Your task to perform on an android device: turn off improve location accuracy Image 0: 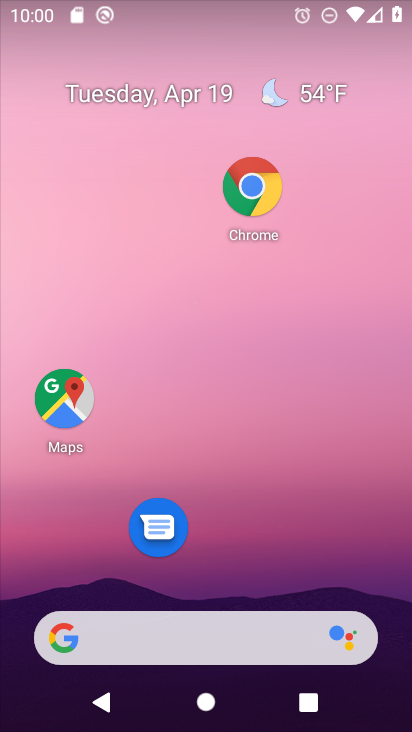
Step 0: click (319, 185)
Your task to perform on an android device: turn off improve location accuracy Image 1: 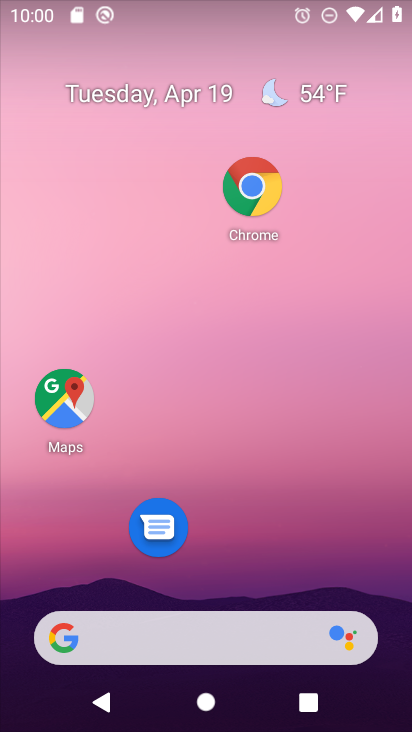
Step 1: drag from (268, 375) to (268, 290)
Your task to perform on an android device: turn off improve location accuracy Image 2: 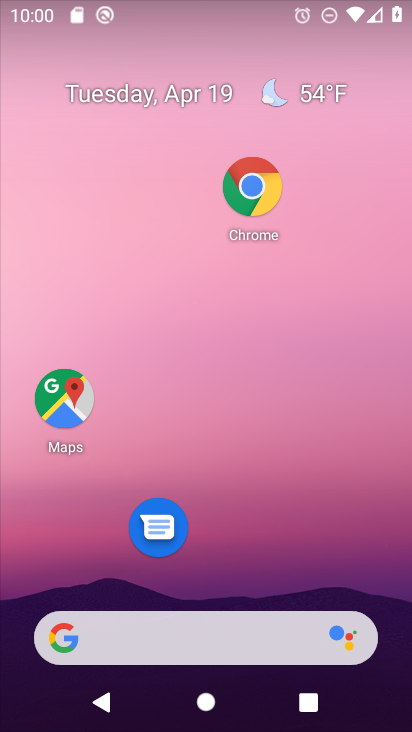
Step 2: drag from (250, 454) to (253, 181)
Your task to perform on an android device: turn off improve location accuracy Image 3: 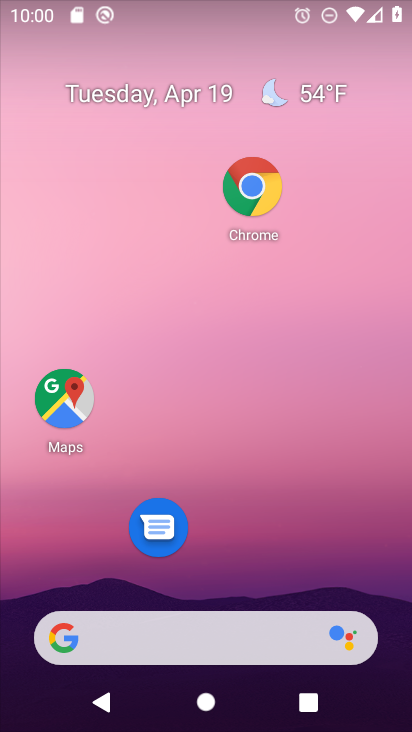
Step 3: drag from (246, 471) to (297, 194)
Your task to perform on an android device: turn off improve location accuracy Image 4: 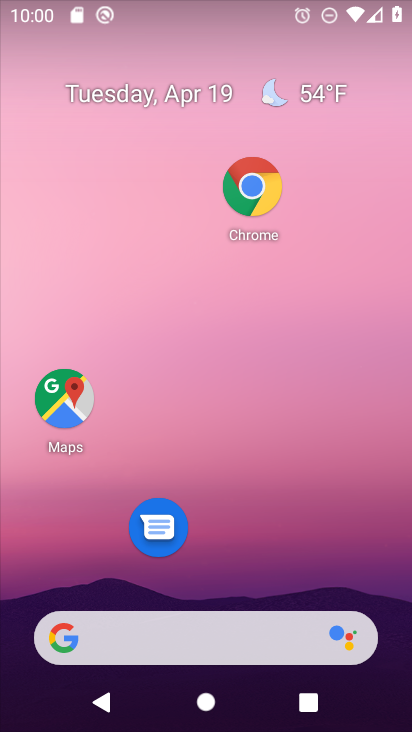
Step 4: drag from (248, 598) to (318, 194)
Your task to perform on an android device: turn off improve location accuracy Image 5: 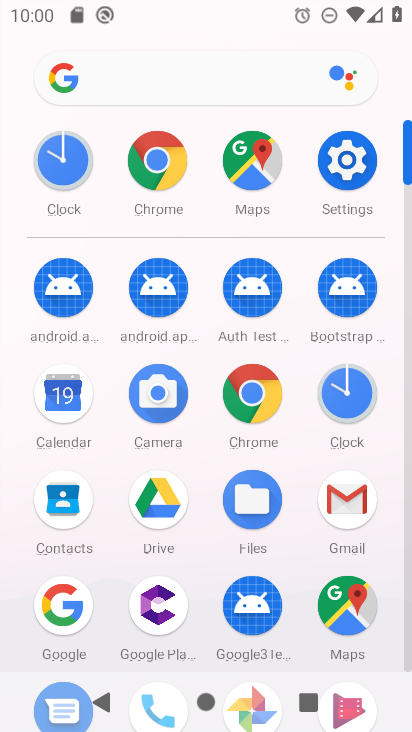
Step 5: click (351, 161)
Your task to perform on an android device: turn off improve location accuracy Image 6: 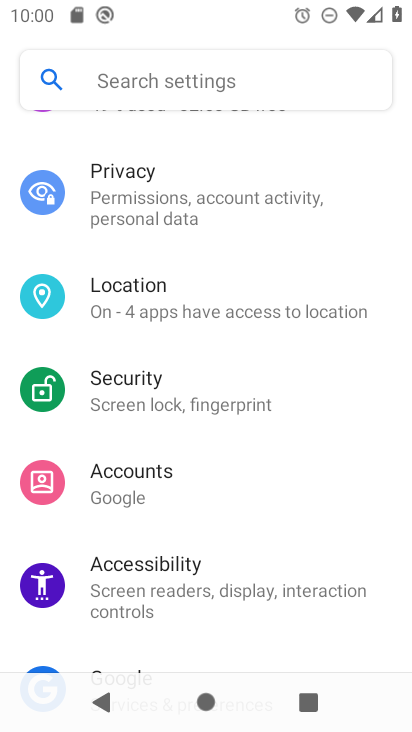
Step 6: click (181, 304)
Your task to perform on an android device: turn off improve location accuracy Image 7: 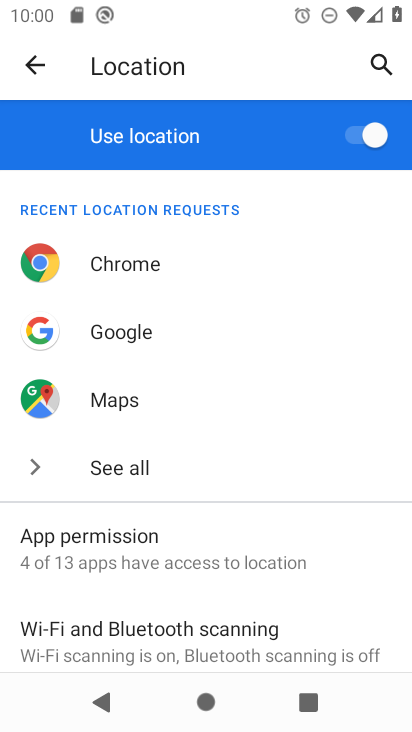
Step 7: drag from (200, 471) to (291, 193)
Your task to perform on an android device: turn off improve location accuracy Image 8: 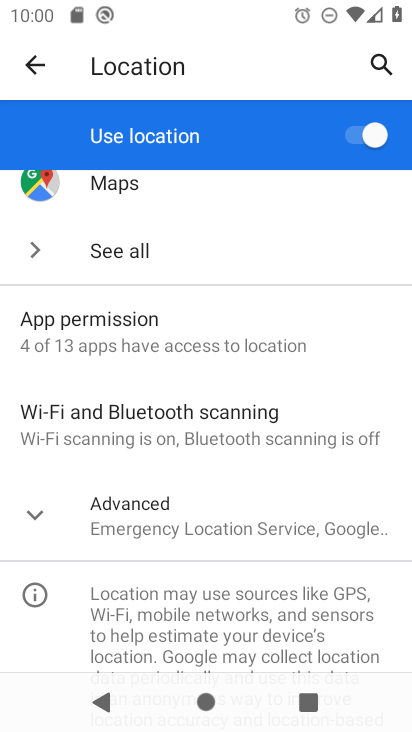
Step 8: click (161, 516)
Your task to perform on an android device: turn off improve location accuracy Image 9: 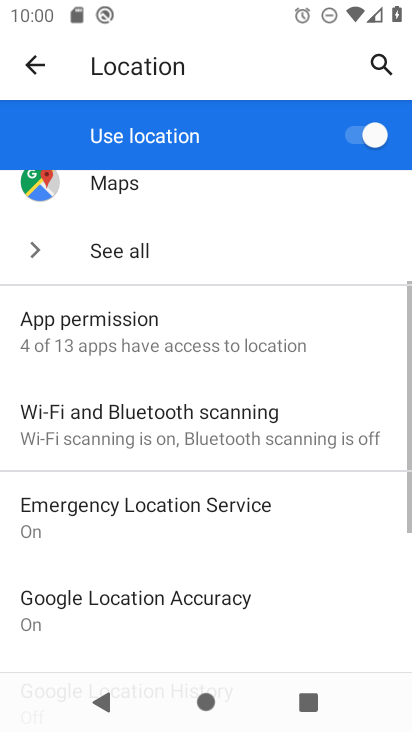
Step 9: drag from (207, 468) to (241, 334)
Your task to perform on an android device: turn off improve location accuracy Image 10: 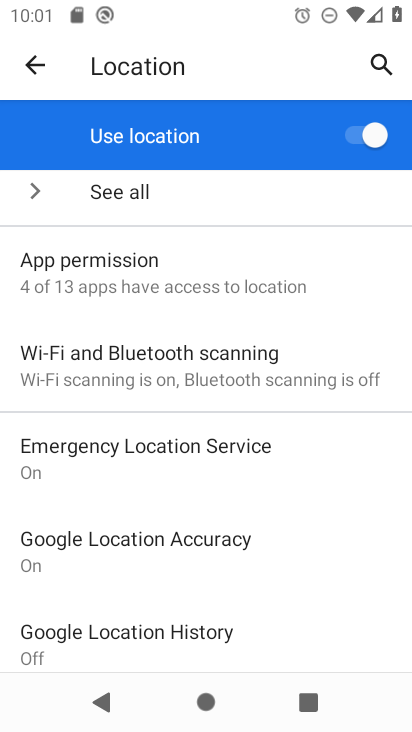
Step 10: drag from (253, 566) to (275, 338)
Your task to perform on an android device: turn off improve location accuracy Image 11: 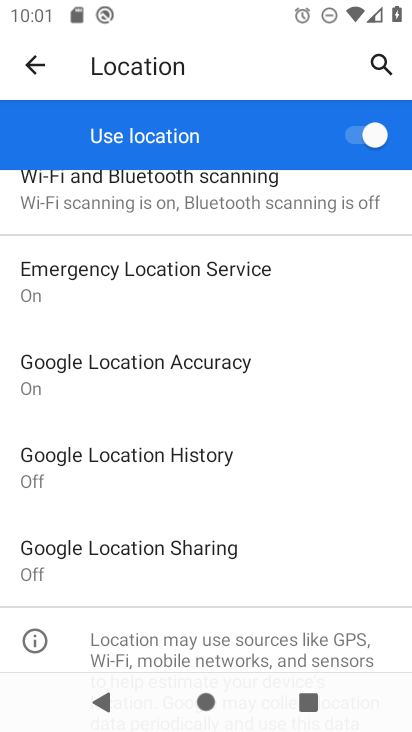
Step 11: click (217, 379)
Your task to perform on an android device: turn off improve location accuracy Image 12: 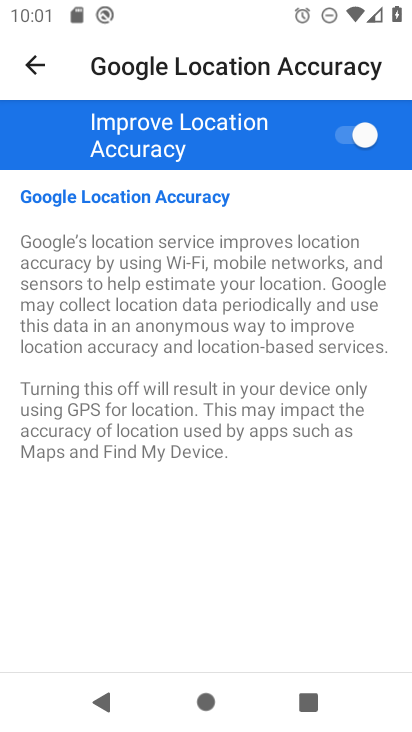
Step 12: click (332, 135)
Your task to perform on an android device: turn off improve location accuracy Image 13: 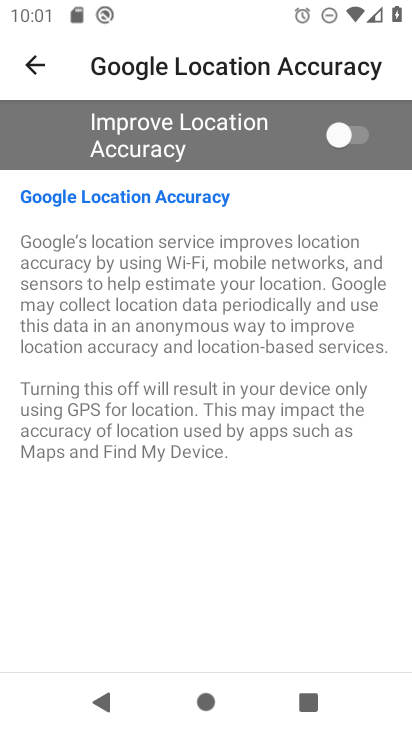
Step 13: task complete